Your task to perform on an android device: install app "Microsoft Excel" Image 0: 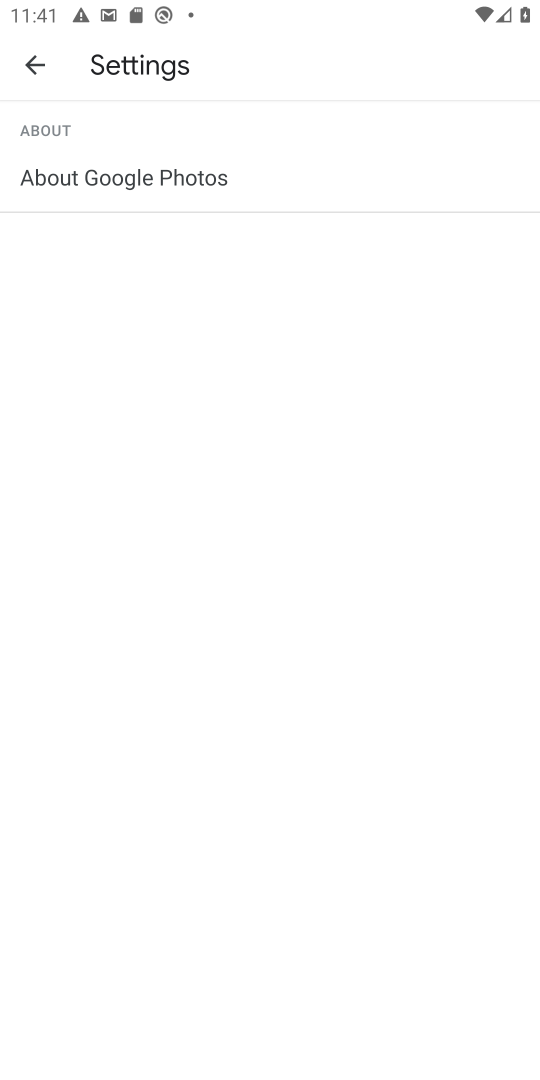
Step 0: press back button
Your task to perform on an android device: install app "Microsoft Excel" Image 1: 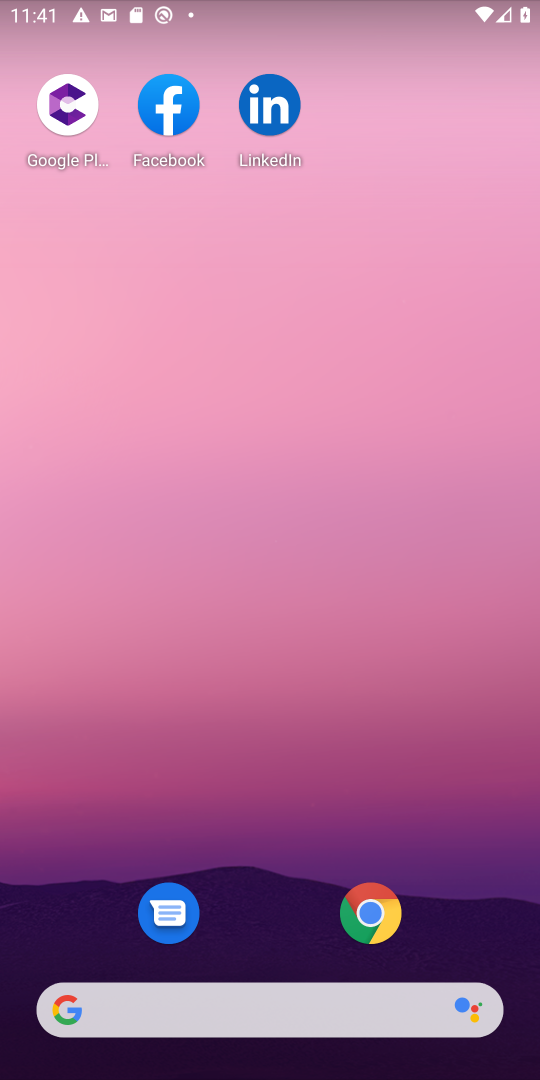
Step 1: drag from (525, 1027) to (479, 16)
Your task to perform on an android device: install app "Microsoft Excel" Image 2: 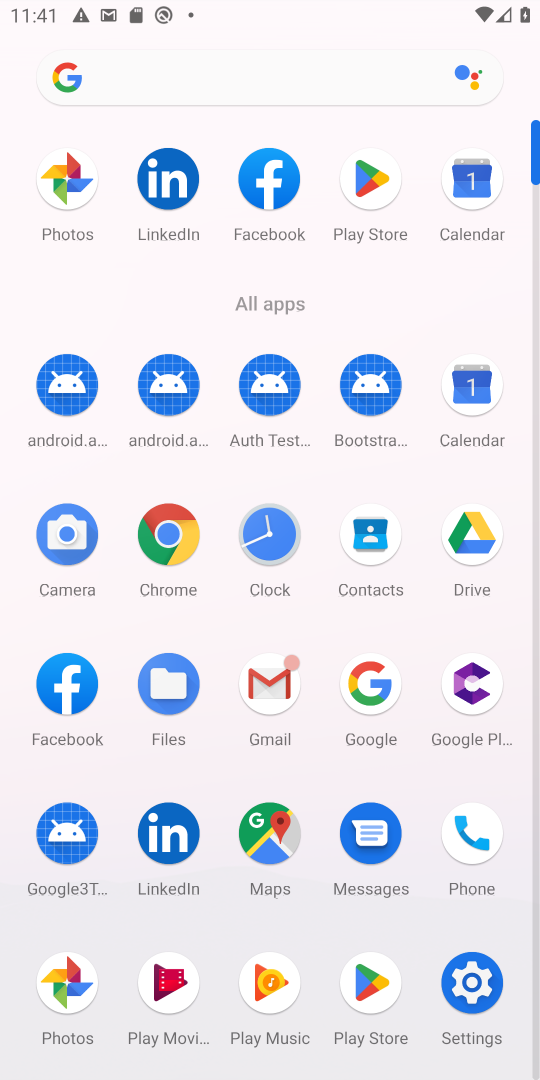
Step 2: click (360, 183)
Your task to perform on an android device: install app "Microsoft Excel" Image 3: 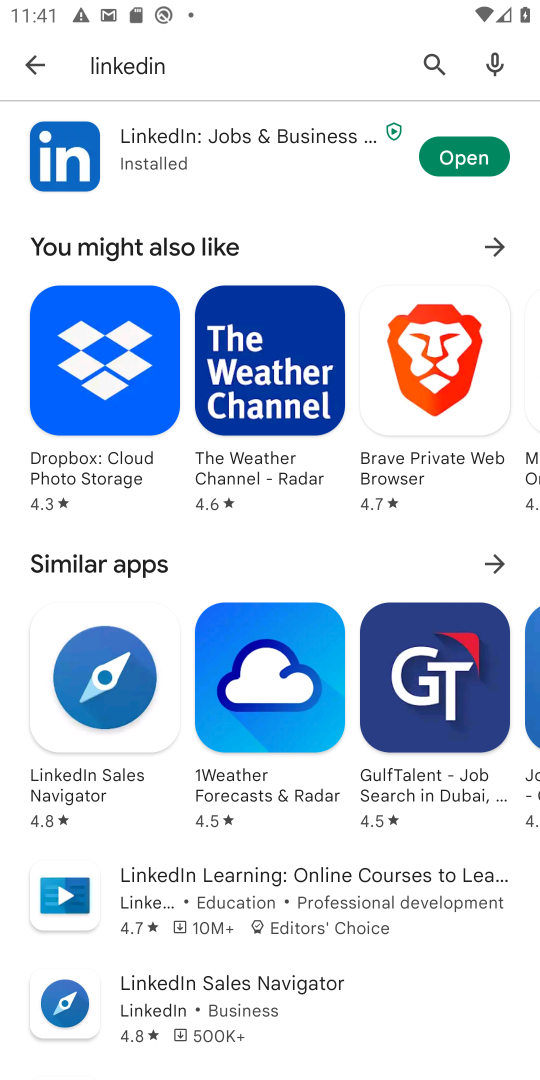
Step 3: click (429, 58)
Your task to perform on an android device: install app "Microsoft Excel" Image 4: 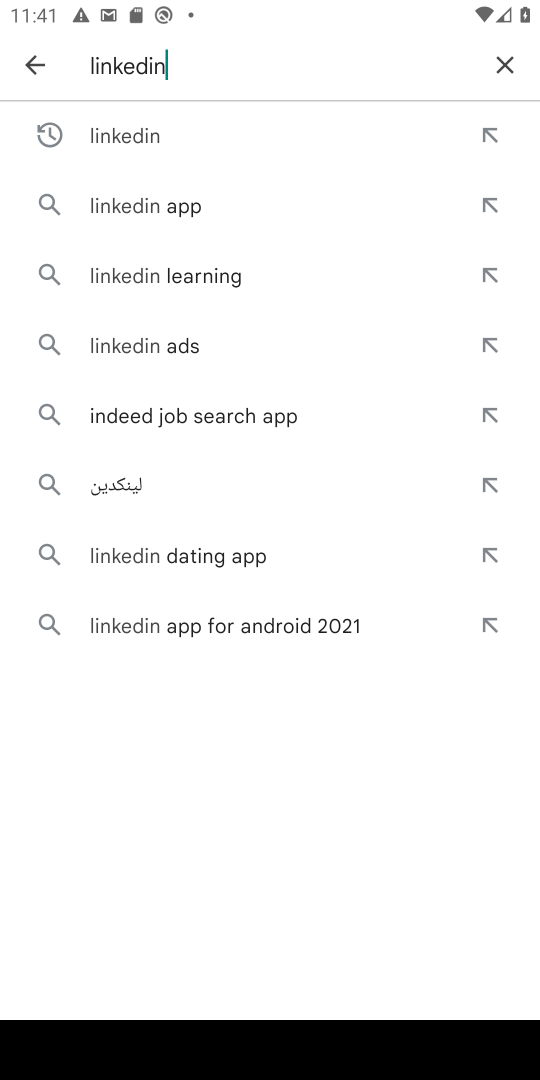
Step 4: click (503, 61)
Your task to perform on an android device: install app "Microsoft Excel" Image 5: 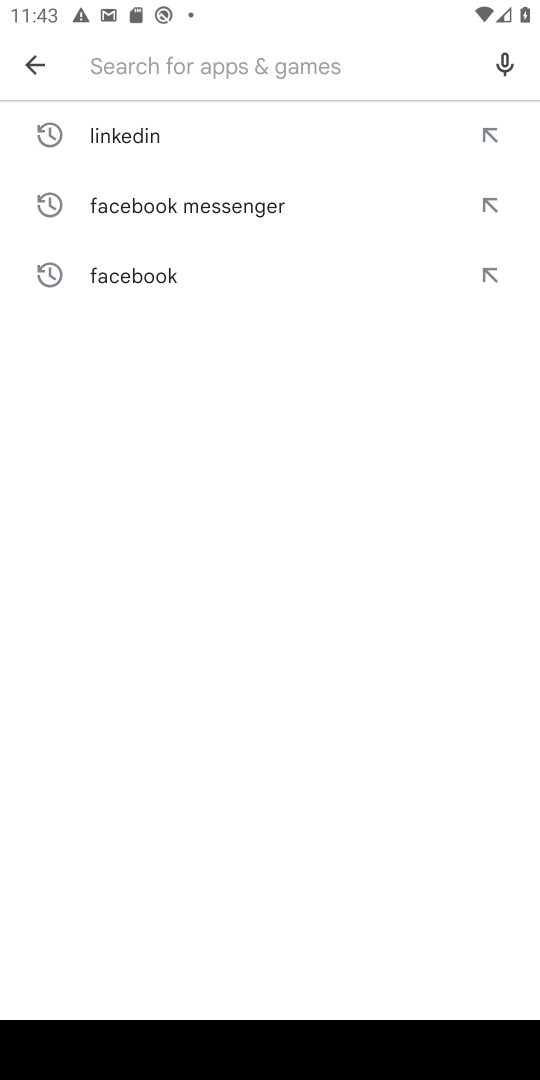
Step 5: type "Microsoft Excel"
Your task to perform on an android device: install app "Microsoft Excel" Image 6: 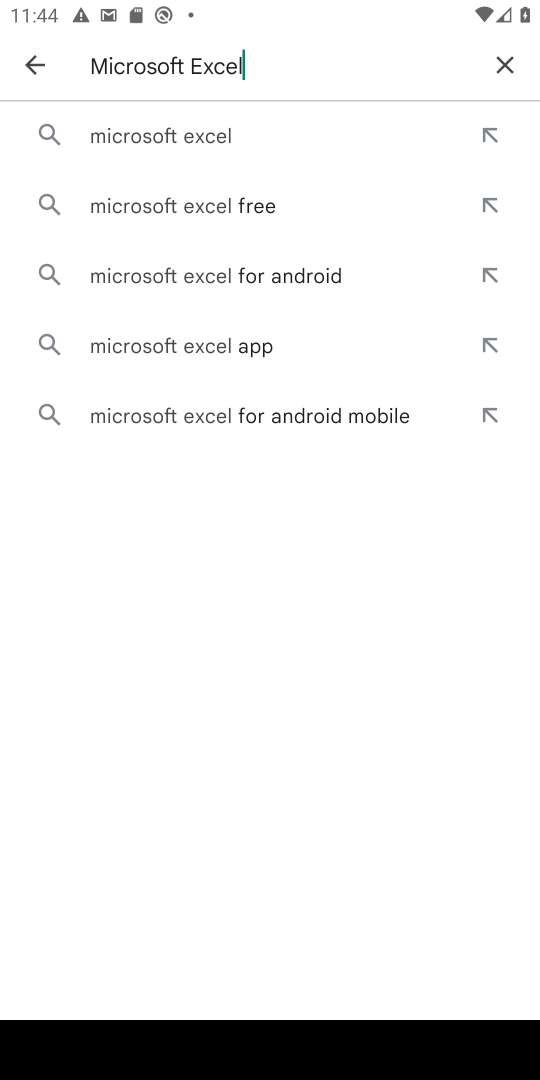
Step 6: click (204, 132)
Your task to perform on an android device: install app "Microsoft Excel" Image 7: 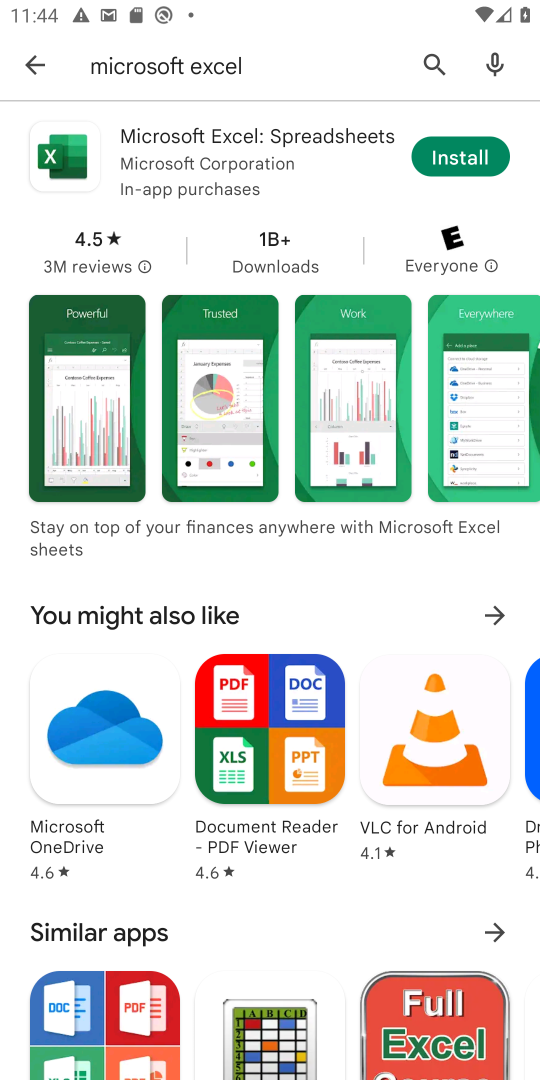
Step 7: click (463, 154)
Your task to perform on an android device: install app "Microsoft Excel" Image 8: 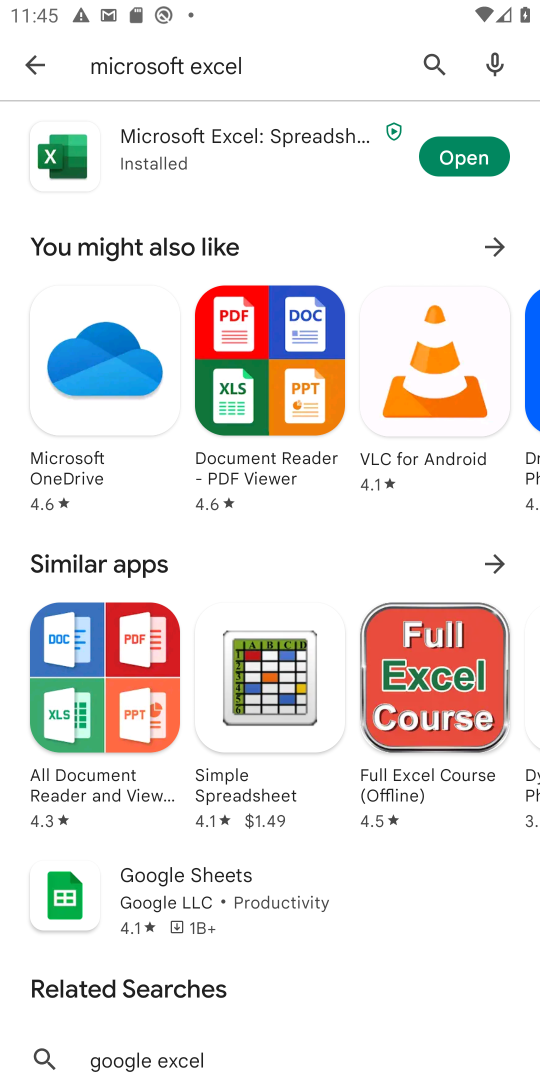
Step 8: task complete